Your task to perform on an android device: Open sound settings Image 0: 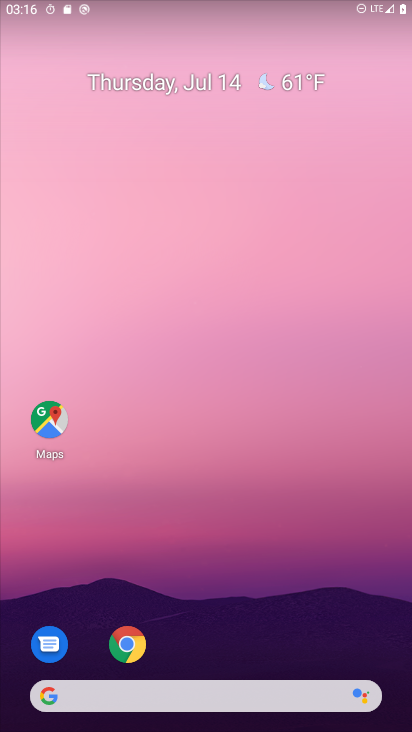
Step 0: drag from (281, 598) to (281, 91)
Your task to perform on an android device: Open sound settings Image 1: 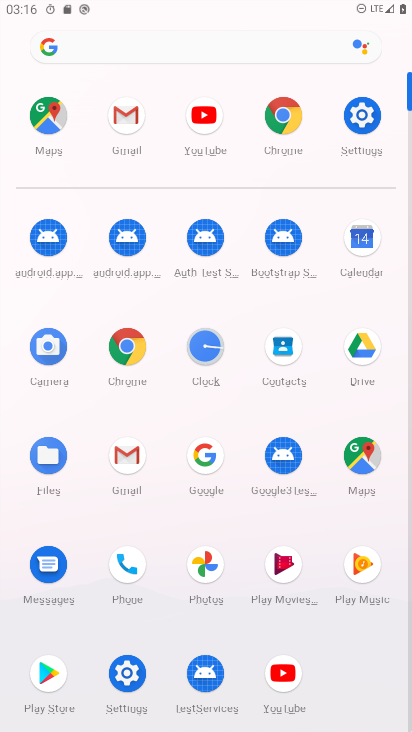
Step 1: click (369, 114)
Your task to perform on an android device: Open sound settings Image 2: 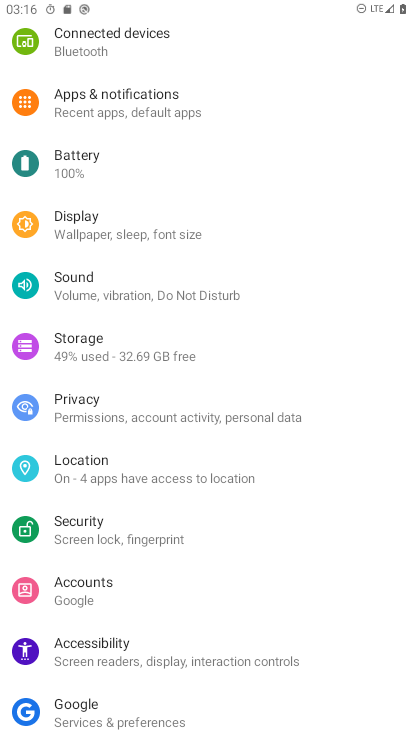
Step 2: click (132, 295)
Your task to perform on an android device: Open sound settings Image 3: 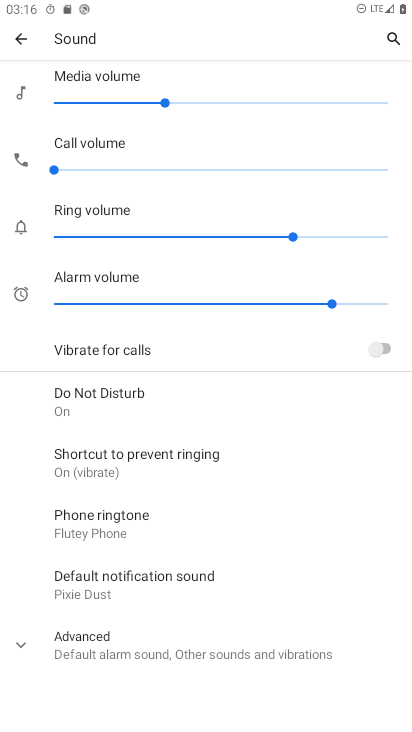
Step 3: task complete